Your task to perform on an android device: Open the stopwatch Image 0: 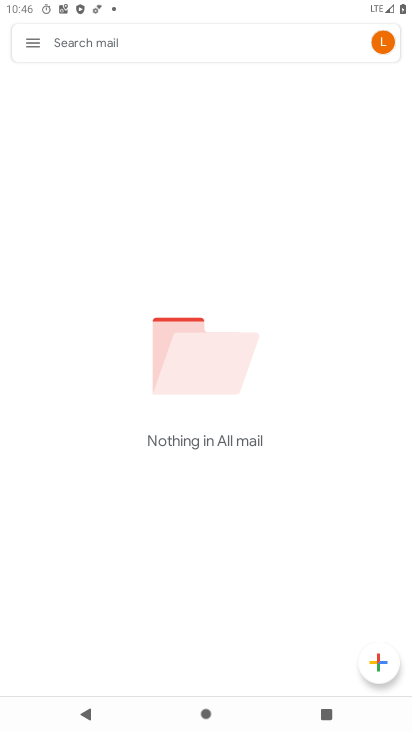
Step 0: press home button
Your task to perform on an android device: Open the stopwatch Image 1: 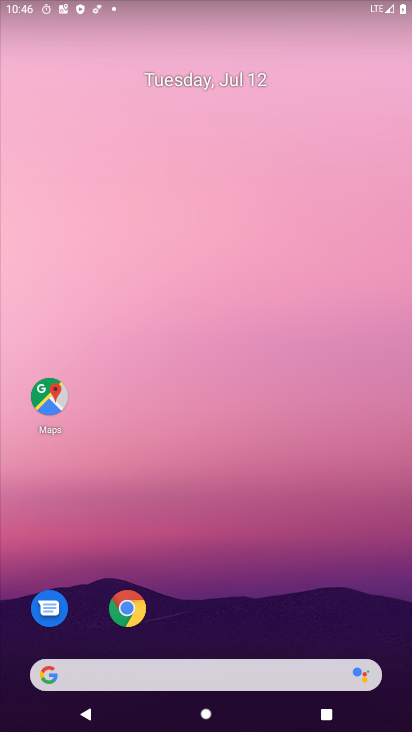
Step 1: drag from (248, 586) to (379, 94)
Your task to perform on an android device: Open the stopwatch Image 2: 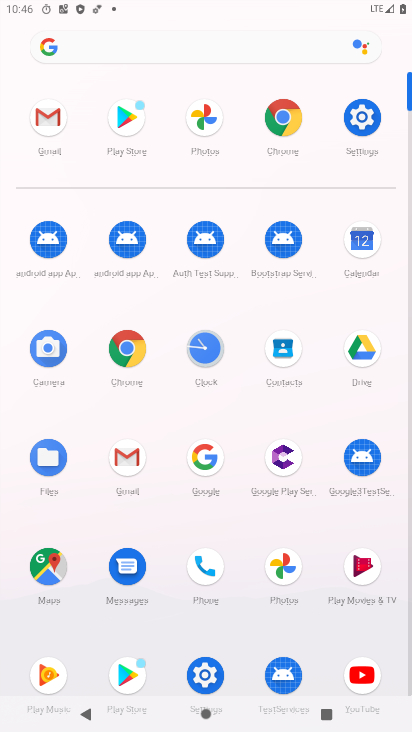
Step 2: click (204, 343)
Your task to perform on an android device: Open the stopwatch Image 3: 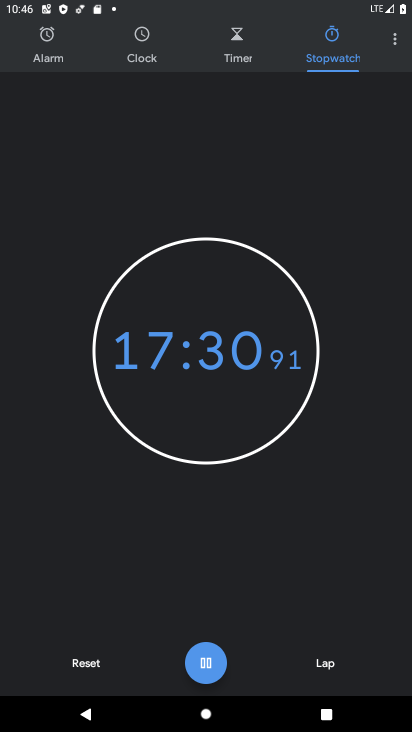
Step 3: task complete